Your task to perform on an android device: open sync settings in chrome Image 0: 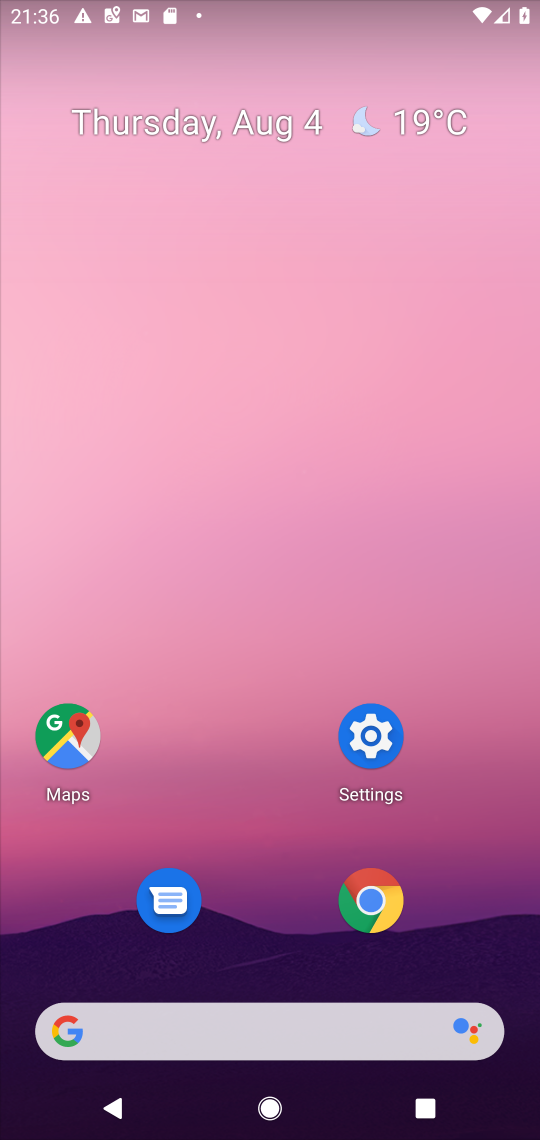
Step 0: click (360, 899)
Your task to perform on an android device: open sync settings in chrome Image 1: 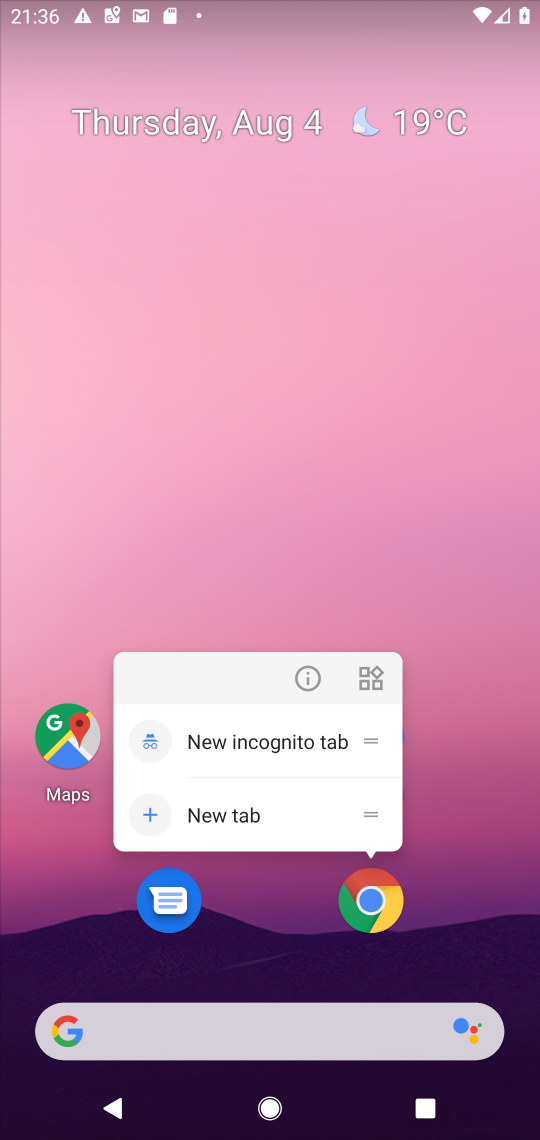
Step 1: click (369, 899)
Your task to perform on an android device: open sync settings in chrome Image 2: 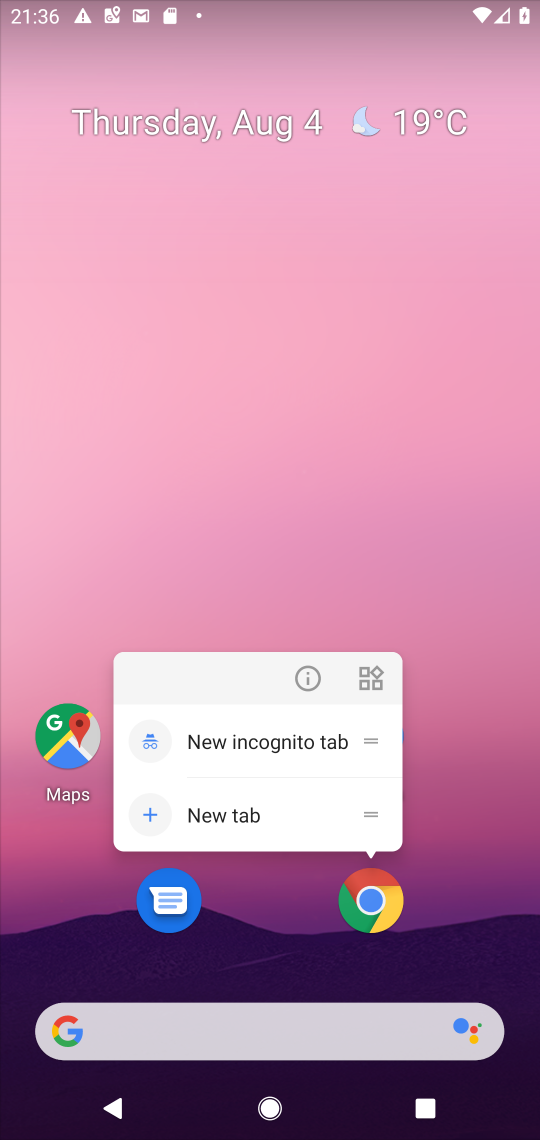
Step 2: click (369, 900)
Your task to perform on an android device: open sync settings in chrome Image 3: 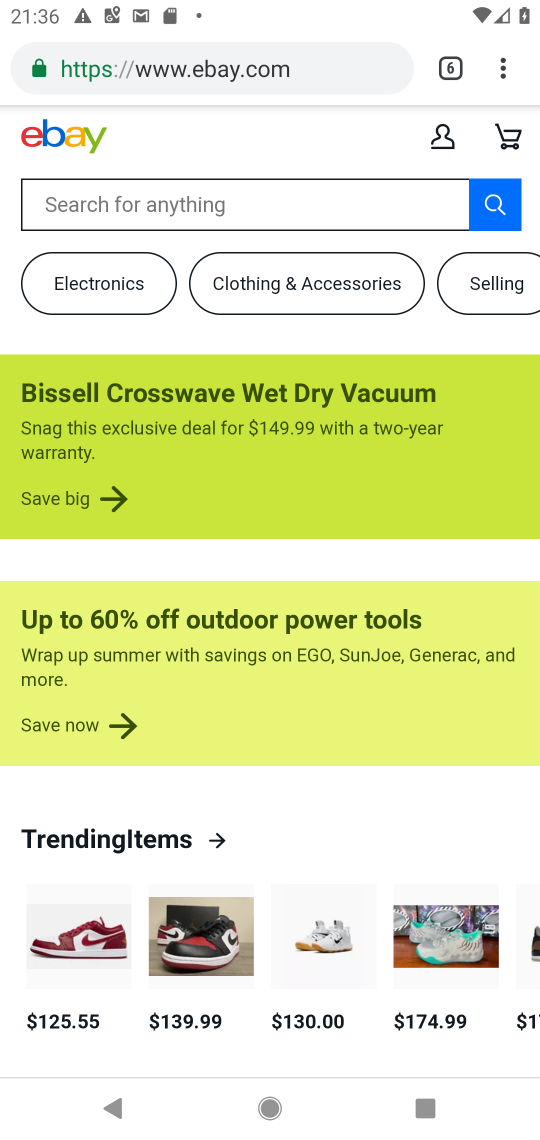
Step 3: drag from (505, 64) to (299, 908)
Your task to perform on an android device: open sync settings in chrome Image 4: 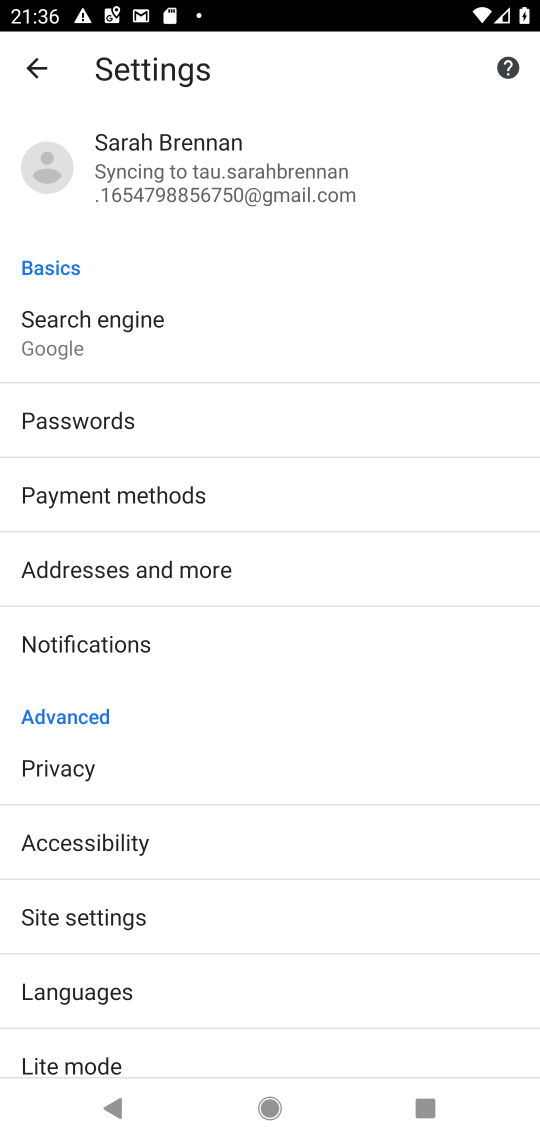
Step 4: click (360, 126)
Your task to perform on an android device: open sync settings in chrome Image 5: 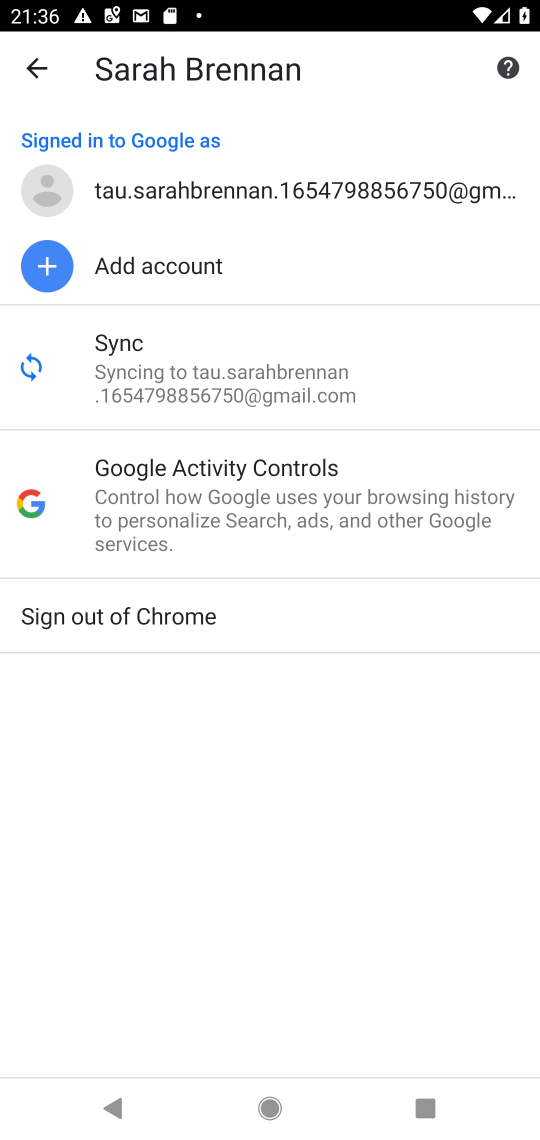
Step 5: click (345, 338)
Your task to perform on an android device: open sync settings in chrome Image 6: 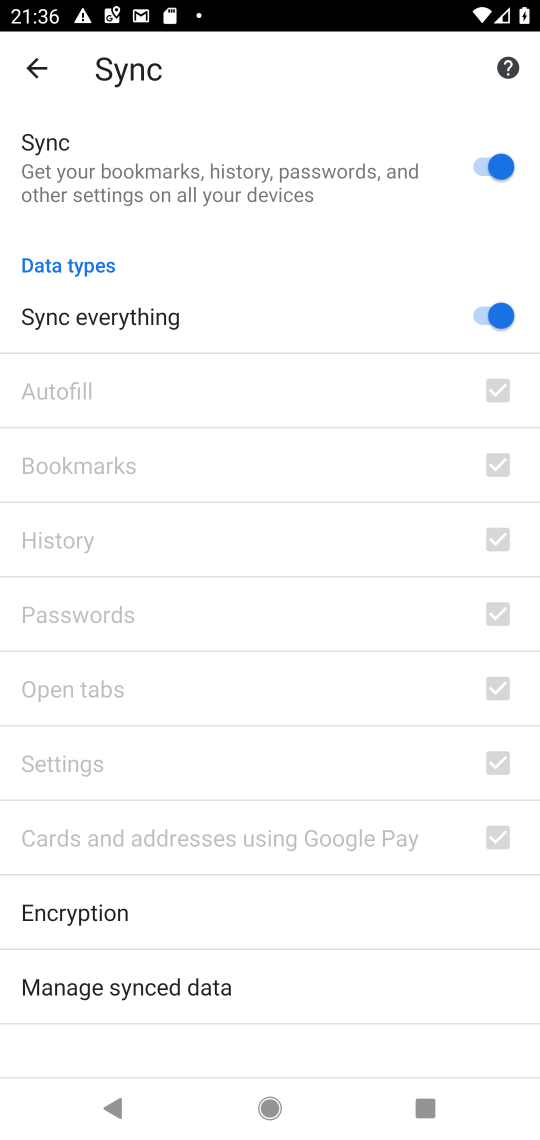
Step 6: task complete